Your task to perform on an android device: Open eBay Image 0: 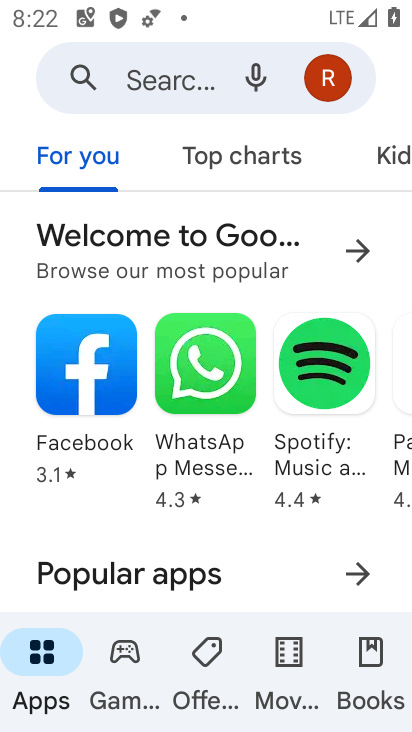
Step 0: press home button
Your task to perform on an android device: Open eBay Image 1: 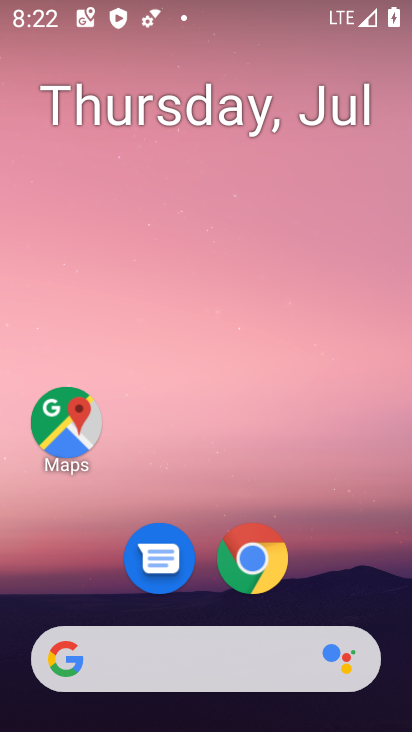
Step 1: drag from (194, 684) to (225, 125)
Your task to perform on an android device: Open eBay Image 2: 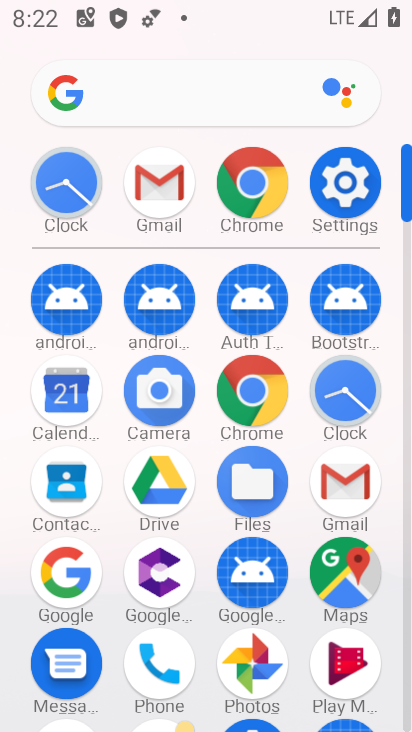
Step 2: click (264, 194)
Your task to perform on an android device: Open eBay Image 3: 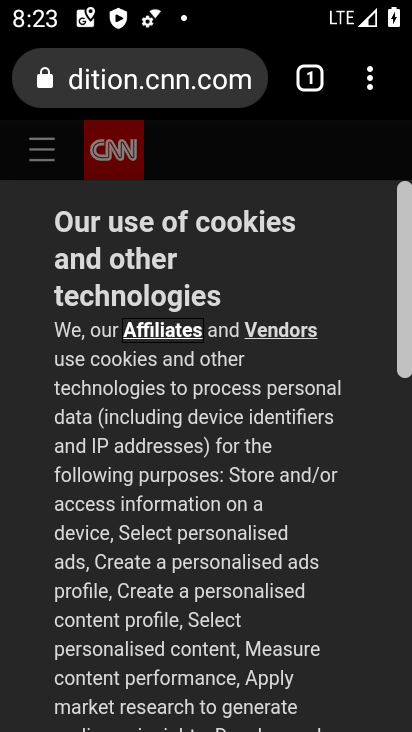
Step 3: click (206, 88)
Your task to perform on an android device: Open eBay Image 4: 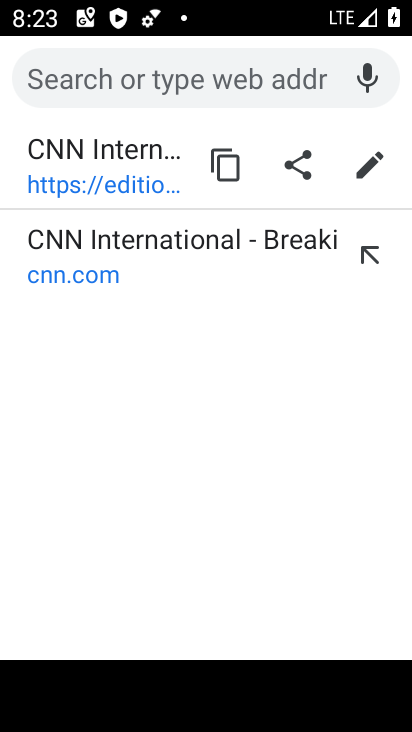
Step 4: type ""
Your task to perform on an android device: Open eBay Image 5: 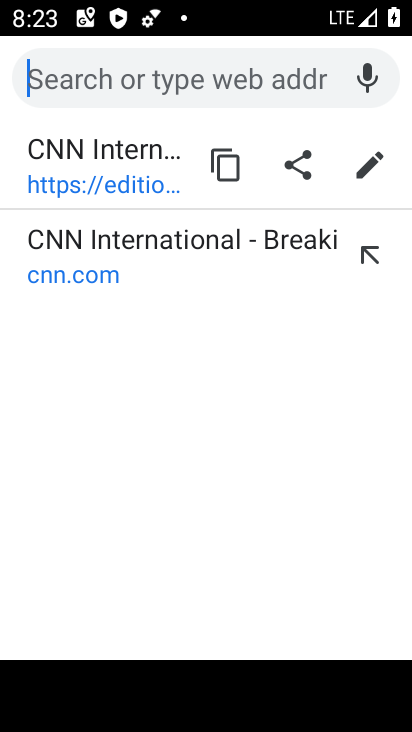
Step 5: type "ebay"
Your task to perform on an android device: Open eBay Image 6: 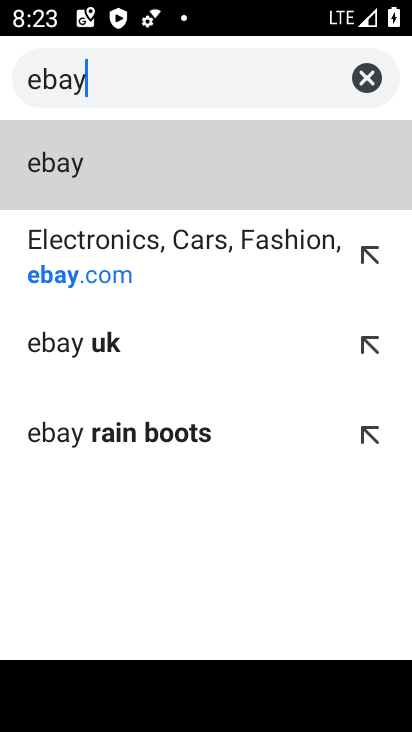
Step 6: click (162, 274)
Your task to perform on an android device: Open eBay Image 7: 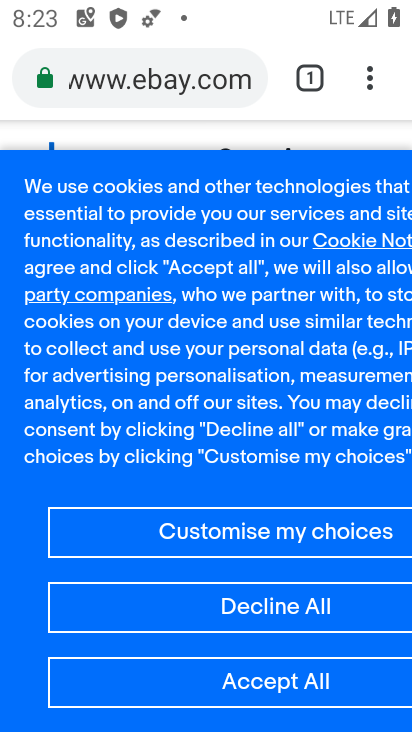
Step 7: task complete